Your task to perform on an android device: Check the news Image 0: 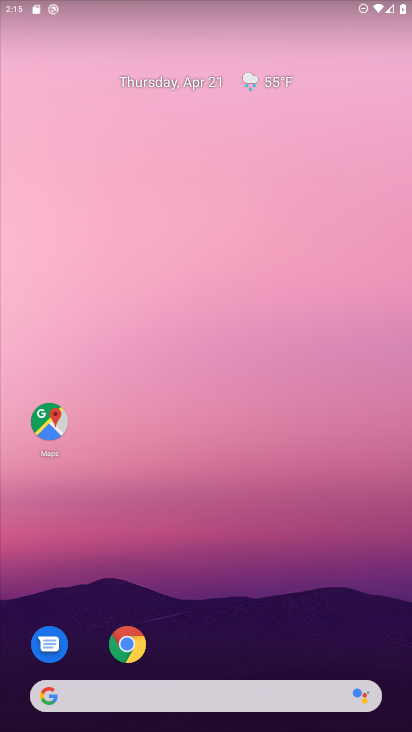
Step 0: drag from (214, 589) to (224, 107)
Your task to perform on an android device: Check the news Image 1: 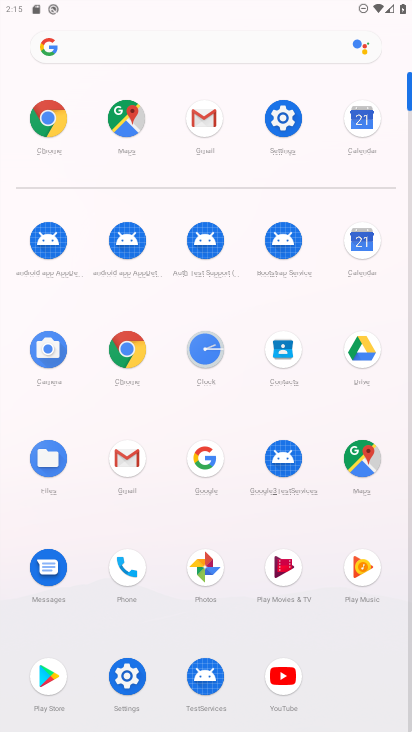
Step 1: click (51, 119)
Your task to perform on an android device: Check the news Image 2: 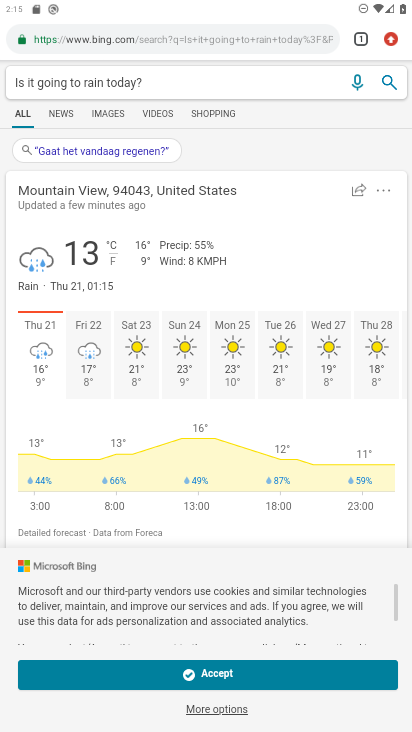
Step 2: click (135, 28)
Your task to perform on an android device: Check the news Image 3: 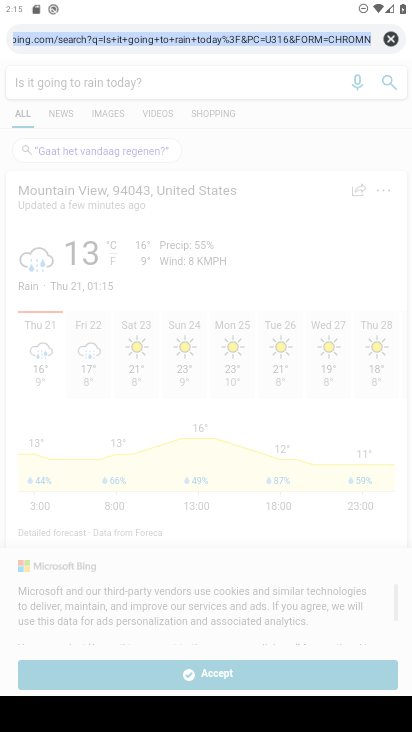
Step 3: click (394, 40)
Your task to perform on an android device: Check the news Image 4: 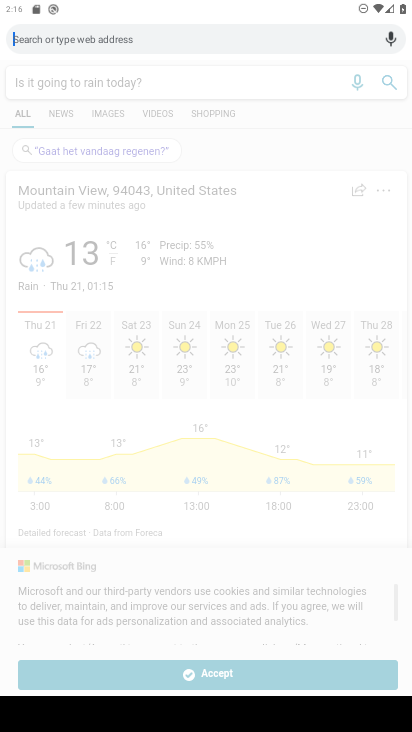
Step 4: type "news"
Your task to perform on an android device: Check the news Image 5: 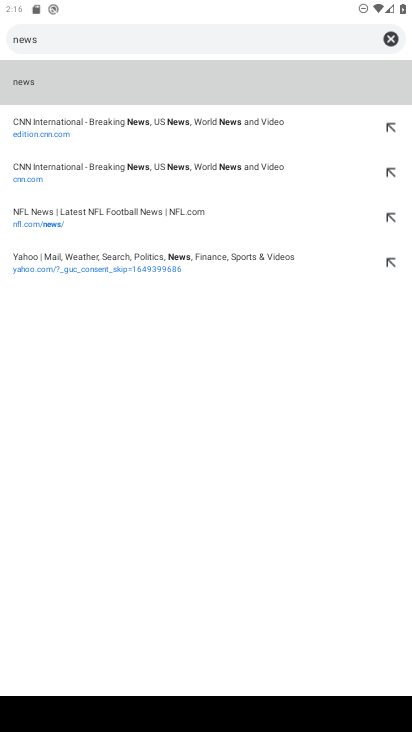
Step 5: click (54, 89)
Your task to perform on an android device: Check the news Image 6: 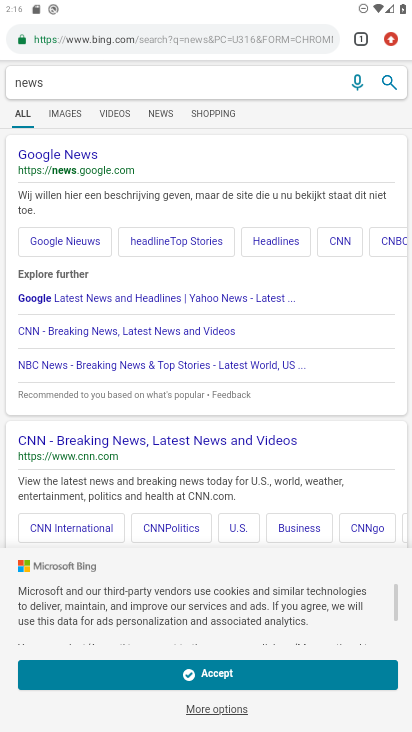
Step 6: click (43, 436)
Your task to perform on an android device: Check the news Image 7: 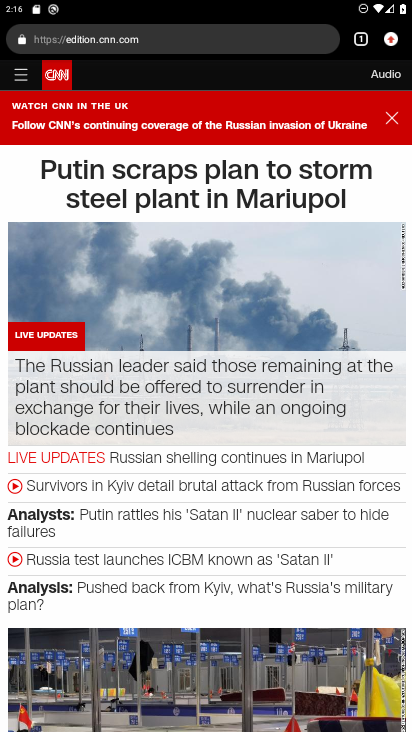
Step 7: task complete